Your task to perform on an android device: toggle notifications settings in the gmail app Image 0: 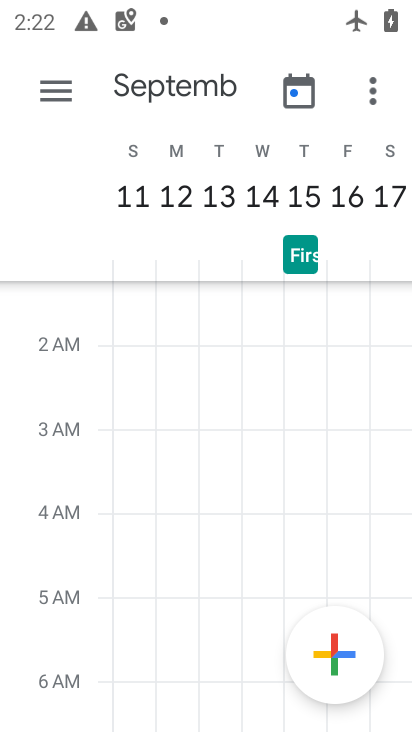
Step 0: press home button
Your task to perform on an android device: toggle notifications settings in the gmail app Image 1: 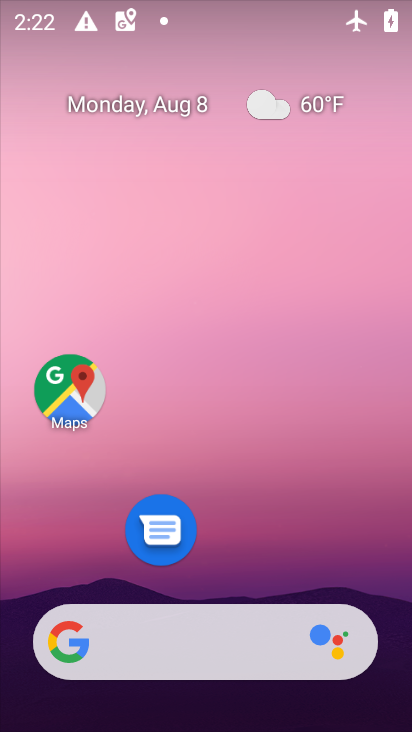
Step 1: drag from (212, 161) to (210, 102)
Your task to perform on an android device: toggle notifications settings in the gmail app Image 2: 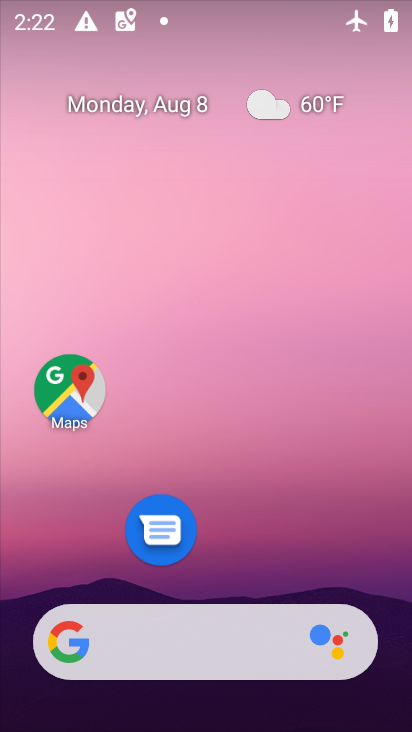
Step 2: click (221, 223)
Your task to perform on an android device: toggle notifications settings in the gmail app Image 3: 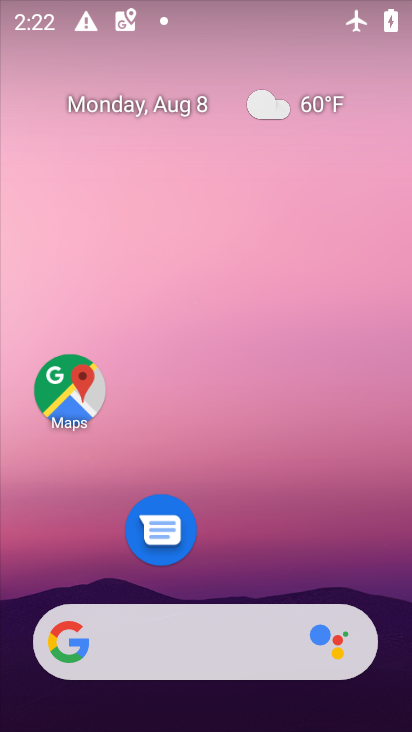
Step 3: drag from (229, 504) to (202, 68)
Your task to perform on an android device: toggle notifications settings in the gmail app Image 4: 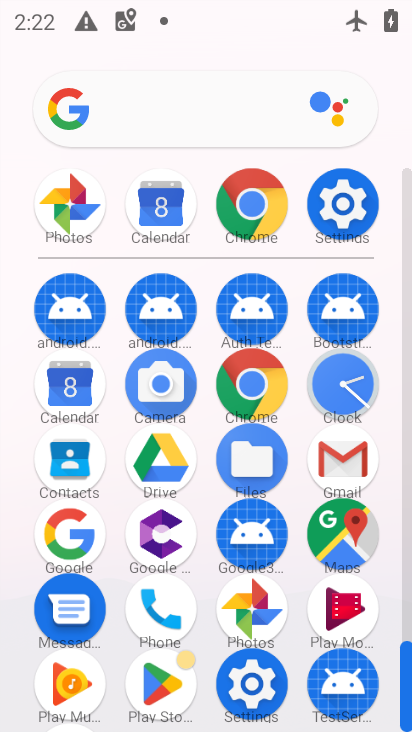
Step 4: click (344, 457)
Your task to perform on an android device: toggle notifications settings in the gmail app Image 5: 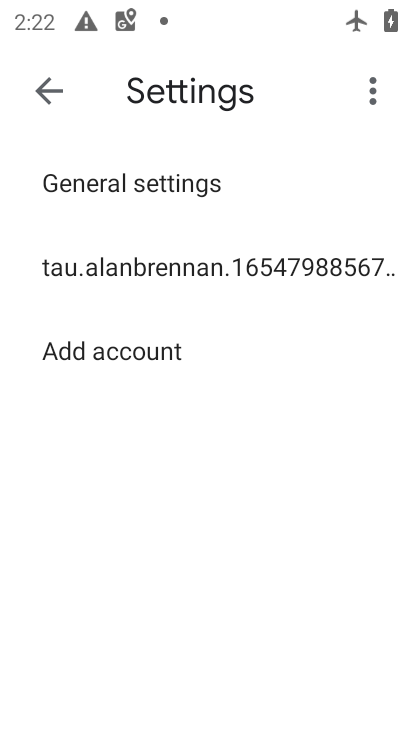
Step 5: click (218, 261)
Your task to perform on an android device: toggle notifications settings in the gmail app Image 6: 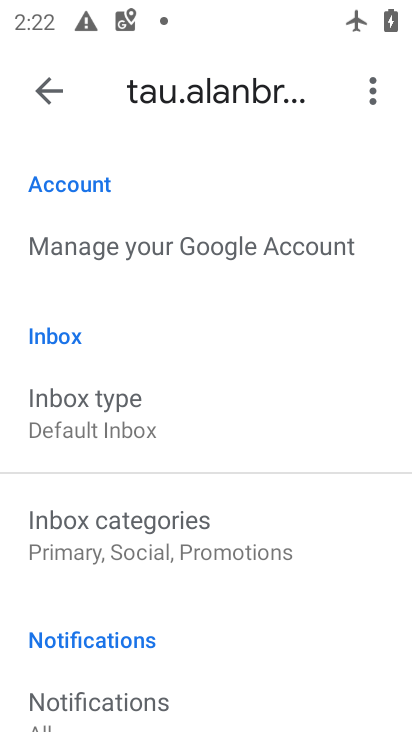
Step 6: click (100, 696)
Your task to perform on an android device: toggle notifications settings in the gmail app Image 7: 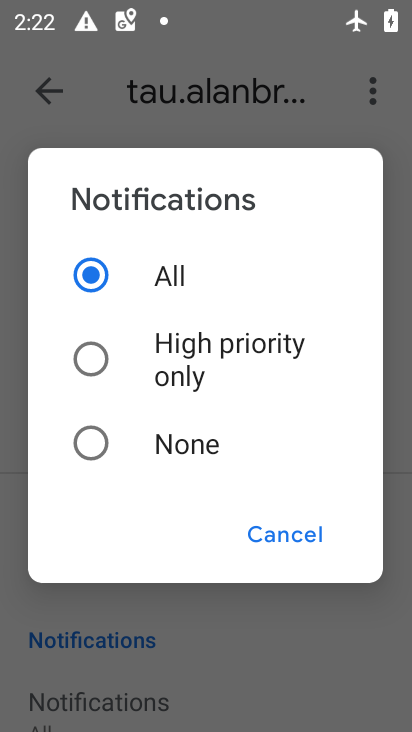
Step 7: click (100, 361)
Your task to perform on an android device: toggle notifications settings in the gmail app Image 8: 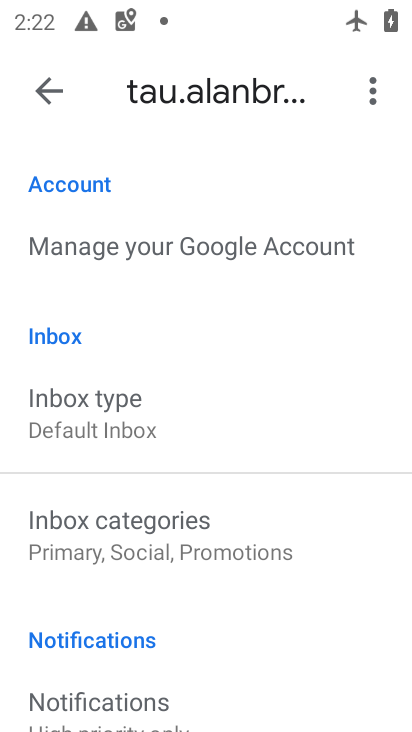
Step 8: task complete